Your task to perform on an android device: toggle pop-ups in chrome Image 0: 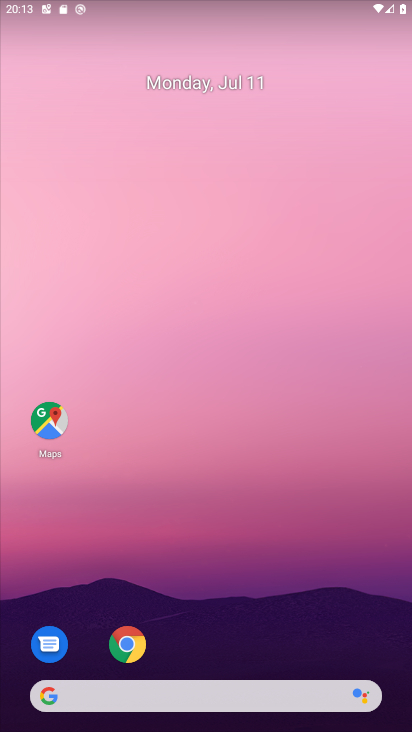
Step 0: drag from (256, 654) to (198, 143)
Your task to perform on an android device: toggle pop-ups in chrome Image 1: 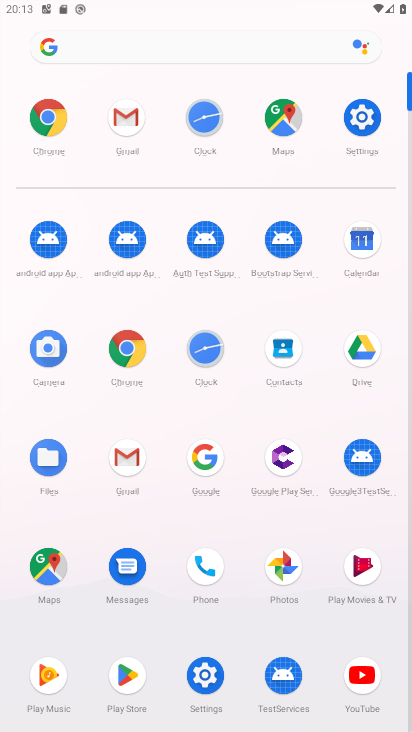
Step 1: click (125, 349)
Your task to perform on an android device: toggle pop-ups in chrome Image 2: 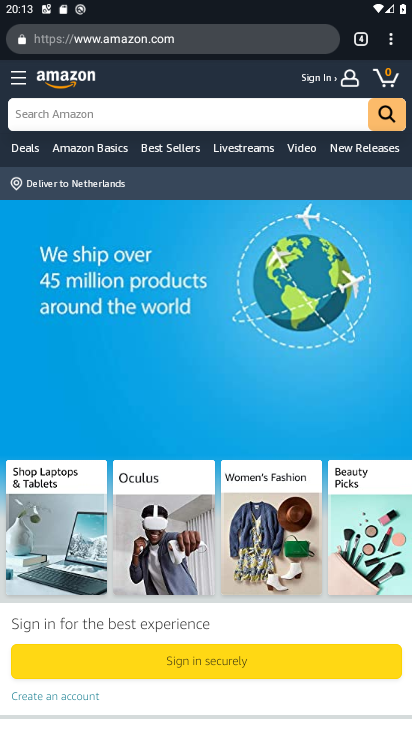
Step 2: click (396, 39)
Your task to perform on an android device: toggle pop-ups in chrome Image 3: 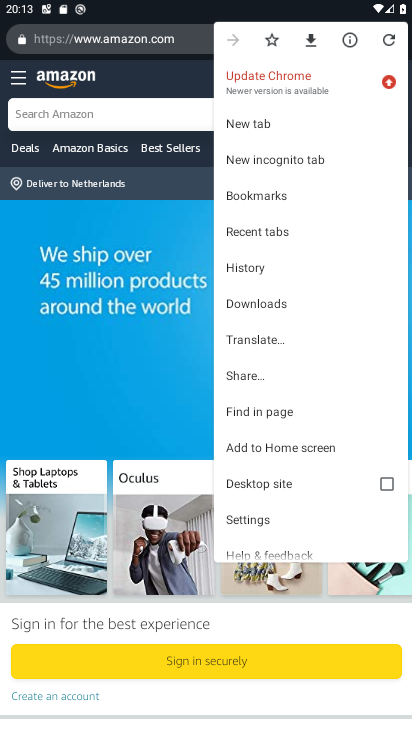
Step 3: click (265, 513)
Your task to perform on an android device: toggle pop-ups in chrome Image 4: 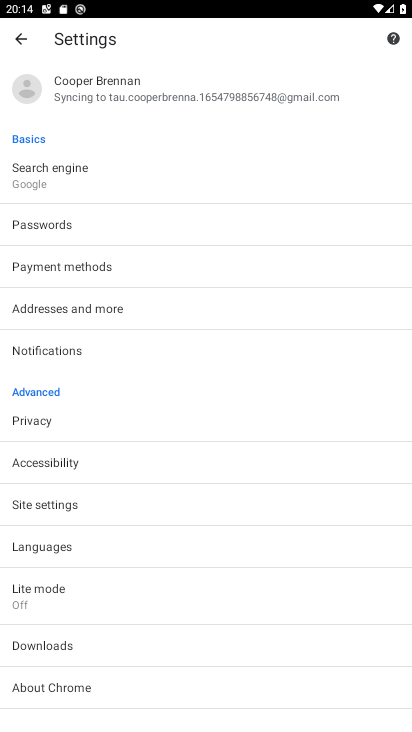
Step 4: click (83, 499)
Your task to perform on an android device: toggle pop-ups in chrome Image 5: 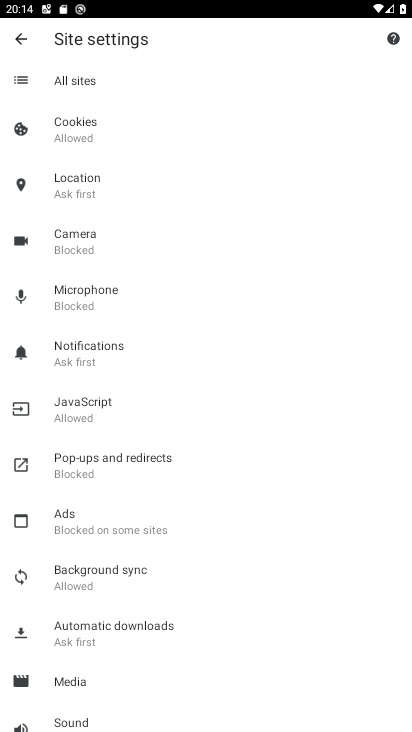
Step 5: click (129, 440)
Your task to perform on an android device: toggle pop-ups in chrome Image 6: 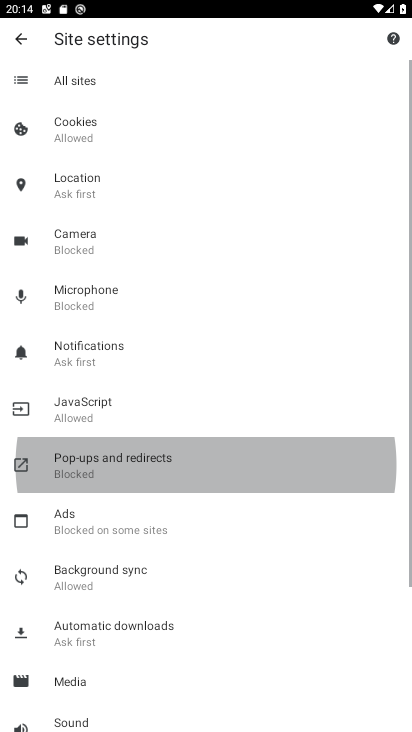
Step 6: click (143, 468)
Your task to perform on an android device: toggle pop-ups in chrome Image 7: 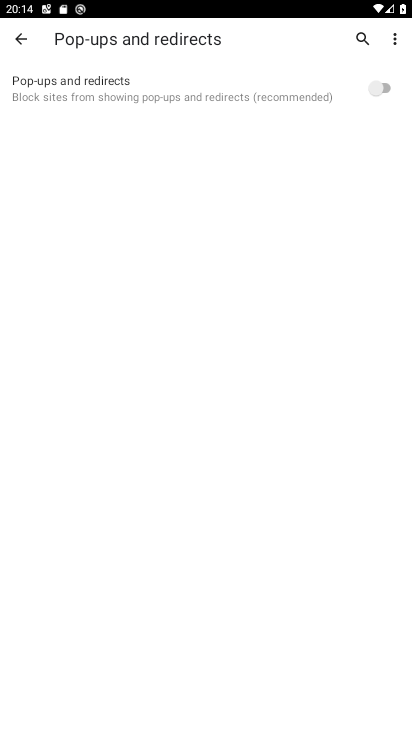
Step 7: click (381, 86)
Your task to perform on an android device: toggle pop-ups in chrome Image 8: 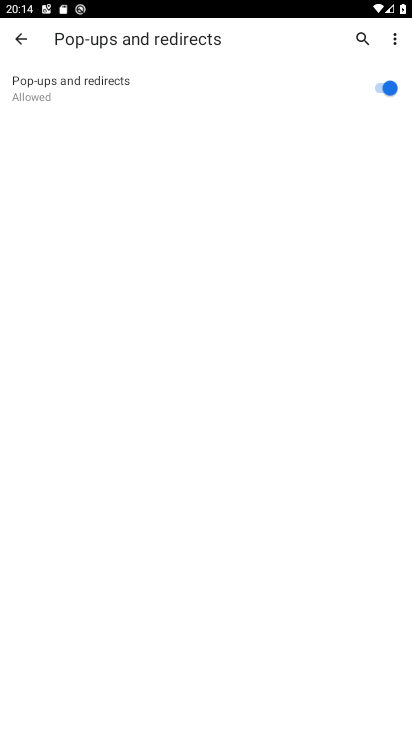
Step 8: task complete